Your task to perform on an android device: What's the weather going to be tomorrow? Image 0: 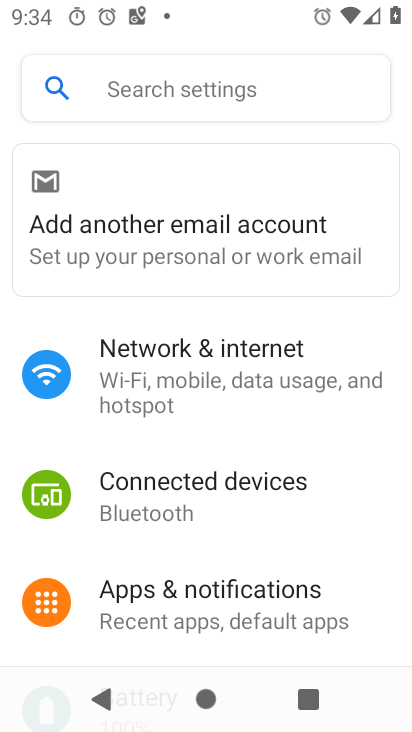
Step 0: press back button
Your task to perform on an android device: What's the weather going to be tomorrow? Image 1: 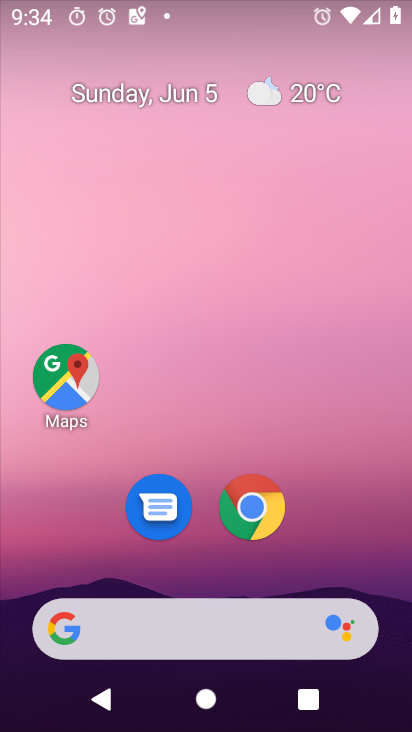
Step 1: click (253, 503)
Your task to perform on an android device: What's the weather going to be tomorrow? Image 2: 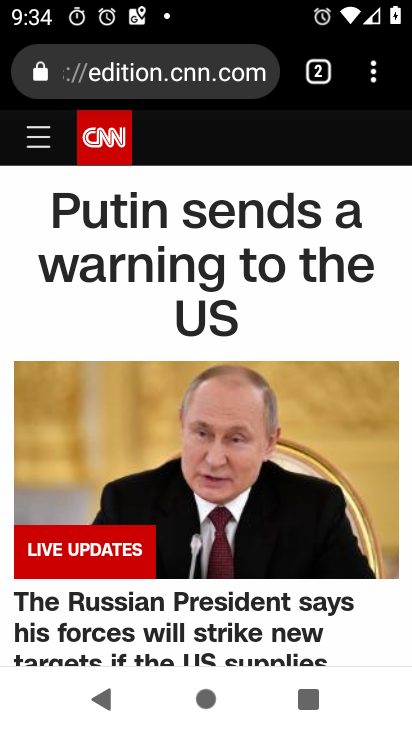
Step 2: click (185, 60)
Your task to perform on an android device: What's the weather going to be tomorrow? Image 3: 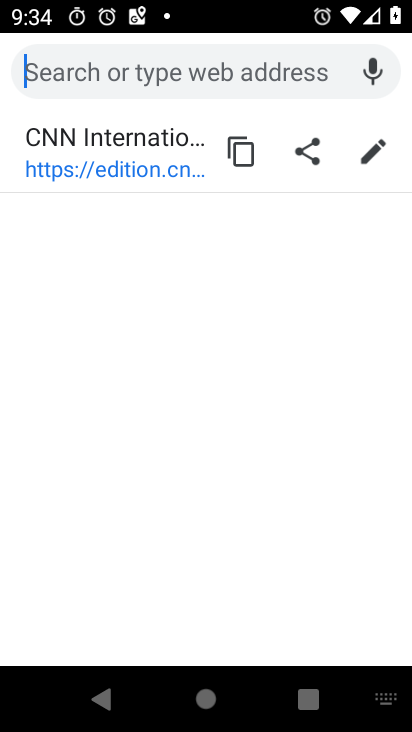
Step 3: type "What's the weather going to be tomorrow?"
Your task to perform on an android device: What's the weather going to be tomorrow? Image 4: 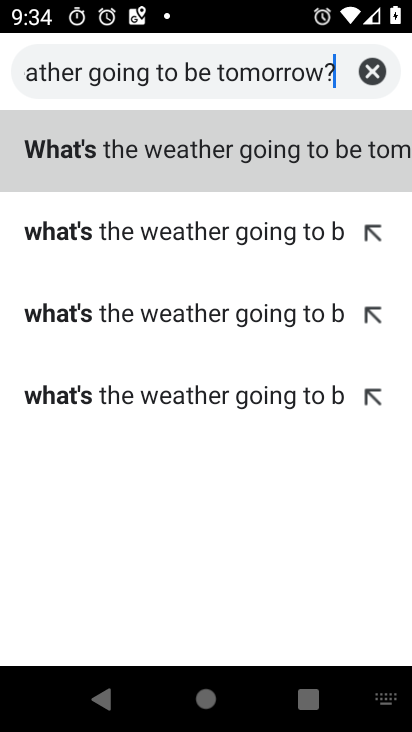
Step 4: type ""
Your task to perform on an android device: What's the weather going to be tomorrow? Image 5: 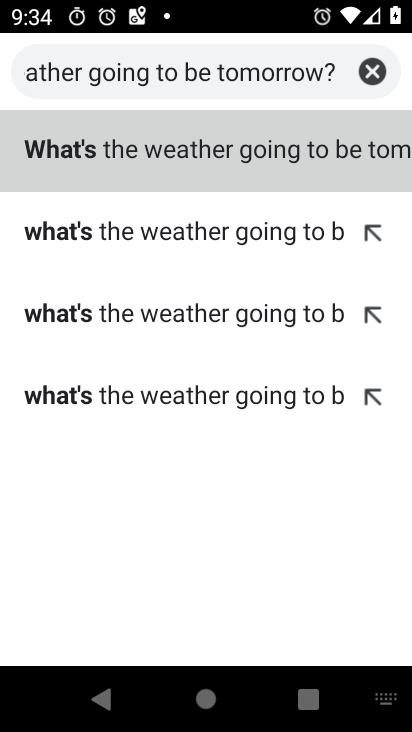
Step 5: click (151, 160)
Your task to perform on an android device: What's the weather going to be tomorrow? Image 6: 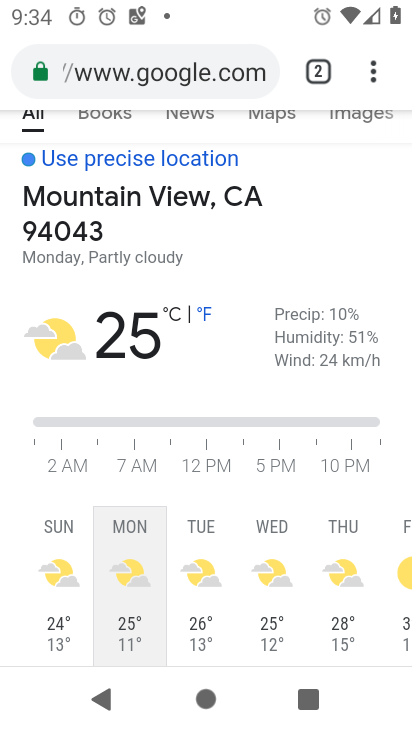
Step 6: task complete